Your task to perform on an android device: Open network settings Image 0: 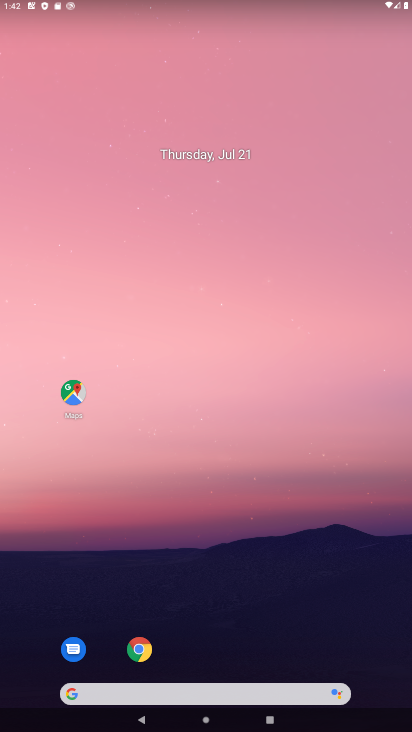
Step 0: drag from (235, 704) to (189, 188)
Your task to perform on an android device: Open network settings Image 1: 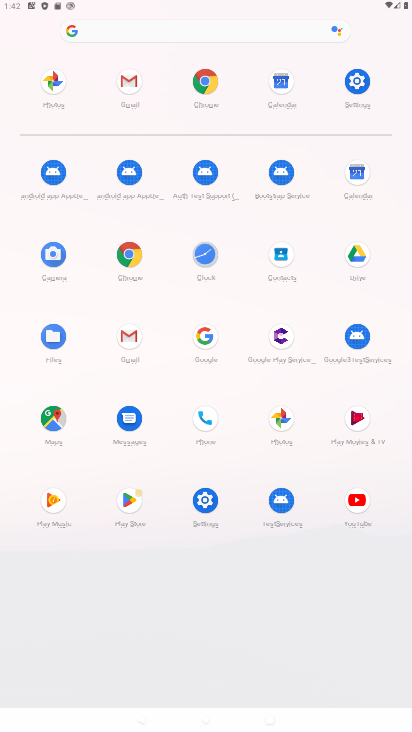
Step 1: click (358, 77)
Your task to perform on an android device: Open network settings Image 2: 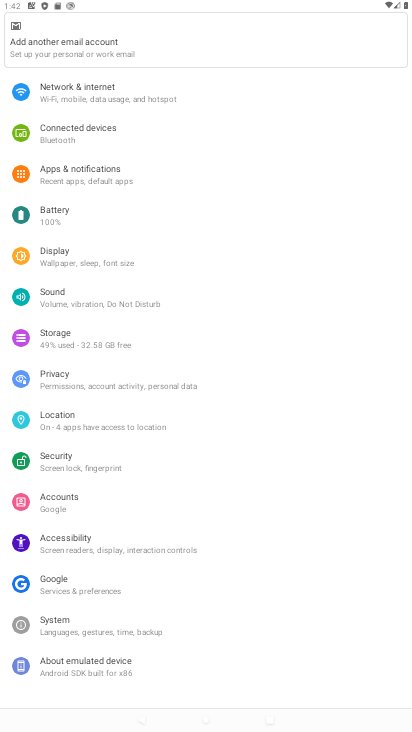
Step 2: click (74, 85)
Your task to perform on an android device: Open network settings Image 3: 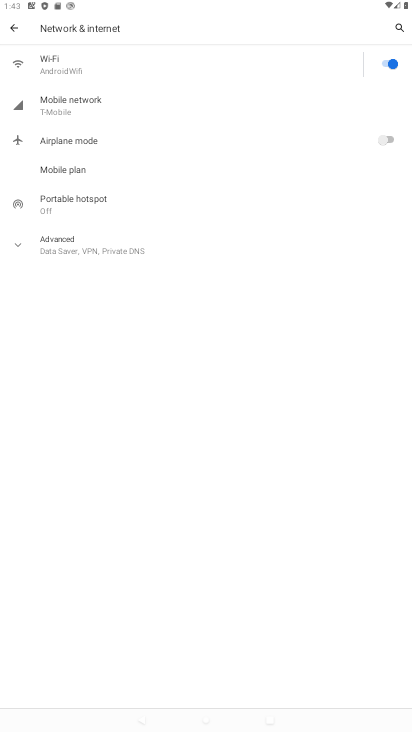
Step 3: click (81, 102)
Your task to perform on an android device: Open network settings Image 4: 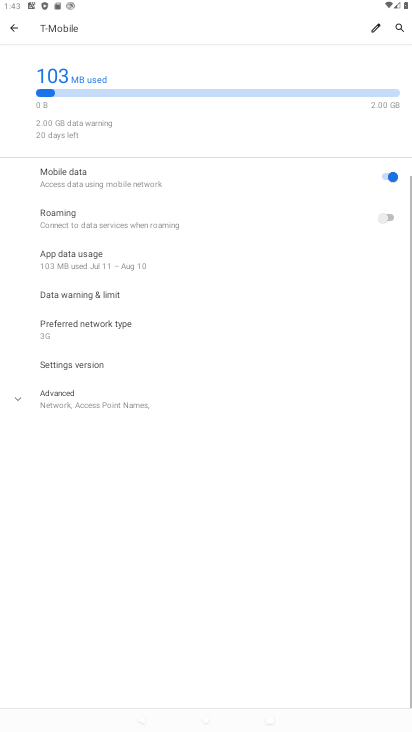
Step 4: task complete